Your task to perform on an android device: stop showing notifications on the lock screen Image 0: 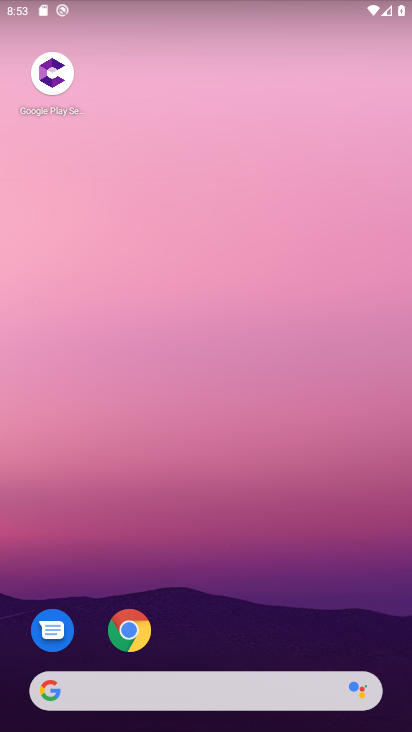
Step 0: drag from (310, 644) to (286, 66)
Your task to perform on an android device: stop showing notifications on the lock screen Image 1: 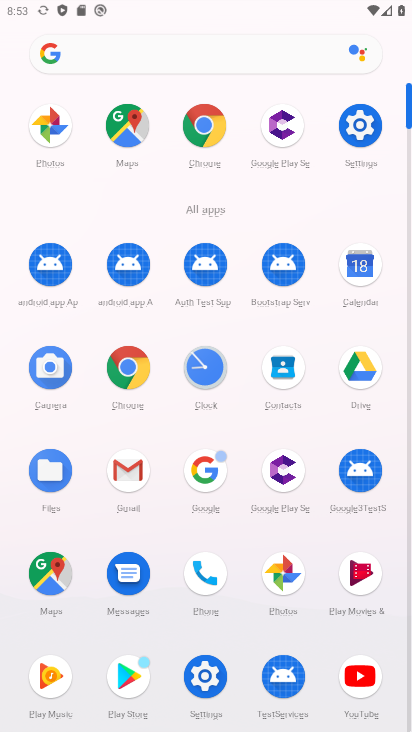
Step 1: click (358, 144)
Your task to perform on an android device: stop showing notifications on the lock screen Image 2: 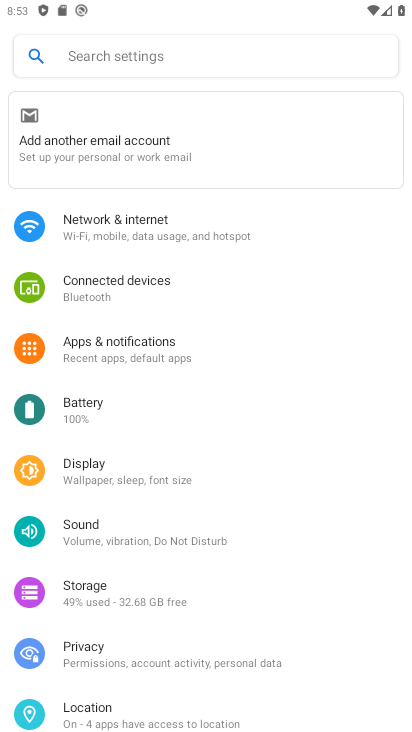
Step 2: click (218, 339)
Your task to perform on an android device: stop showing notifications on the lock screen Image 3: 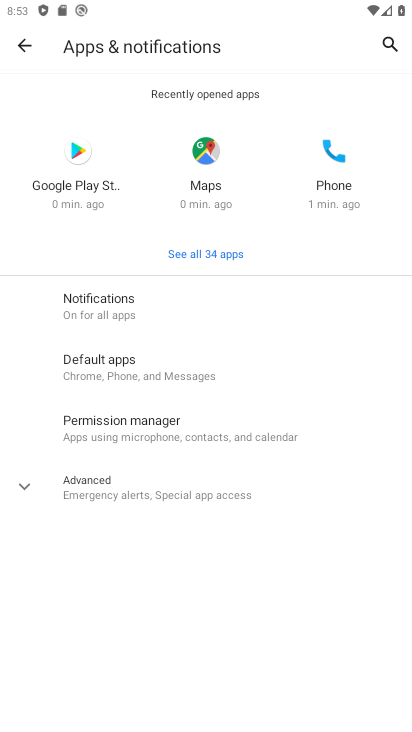
Step 3: click (198, 302)
Your task to perform on an android device: stop showing notifications on the lock screen Image 4: 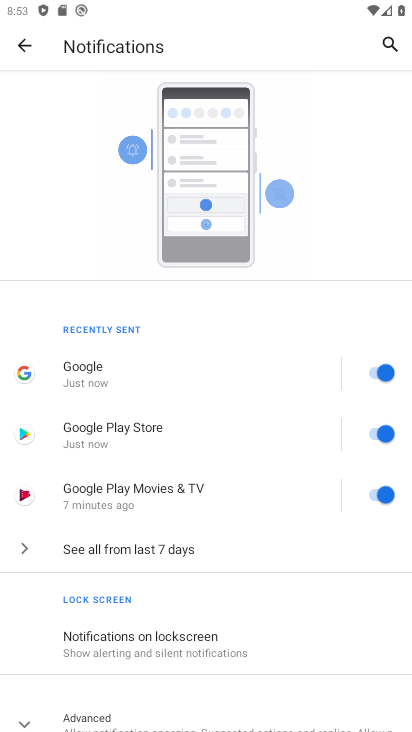
Step 4: click (288, 638)
Your task to perform on an android device: stop showing notifications on the lock screen Image 5: 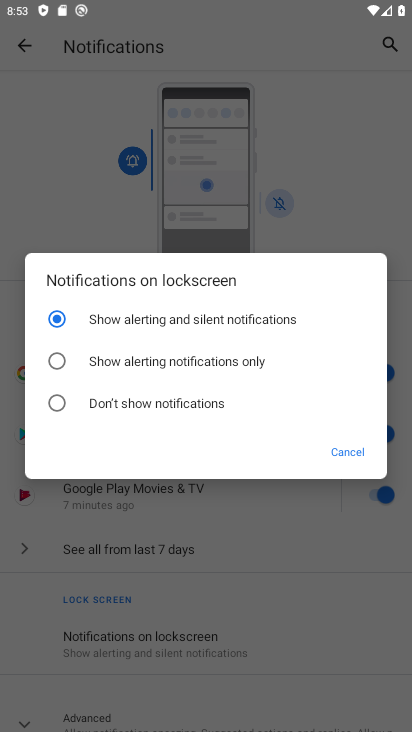
Step 5: click (133, 407)
Your task to perform on an android device: stop showing notifications on the lock screen Image 6: 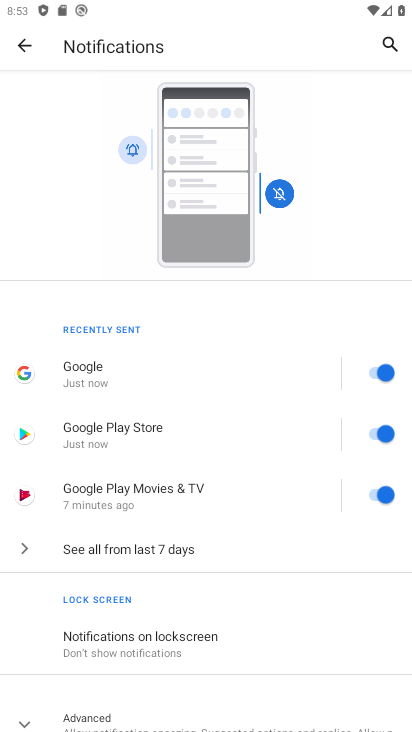
Step 6: task complete